Your task to perform on an android device: open the mobile data screen to see how much data has been used Image 0: 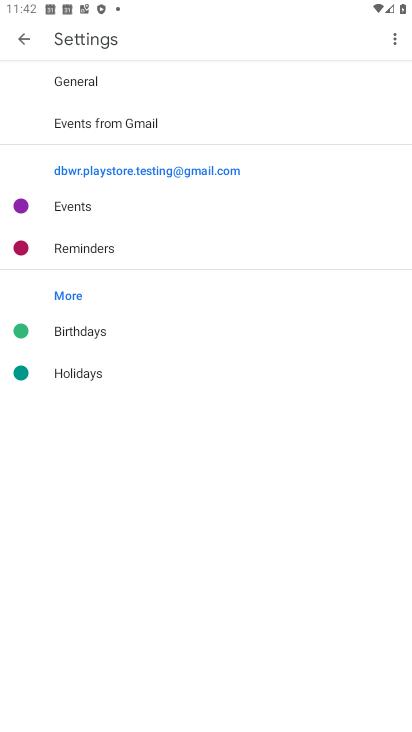
Step 0: press home button
Your task to perform on an android device: open the mobile data screen to see how much data has been used Image 1: 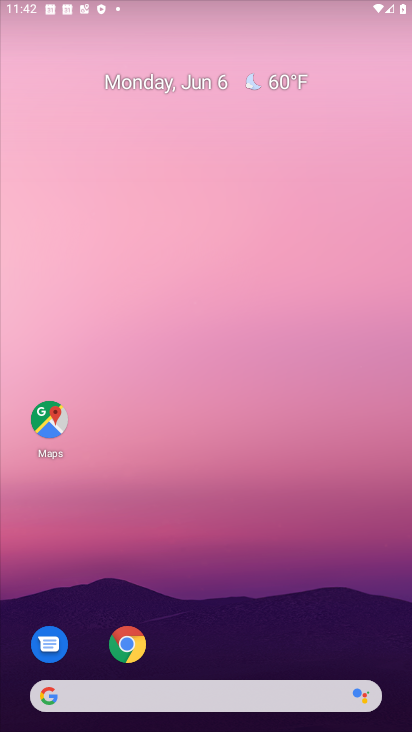
Step 1: drag from (246, 608) to (294, 111)
Your task to perform on an android device: open the mobile data screen to see how much data has been used Image 2: 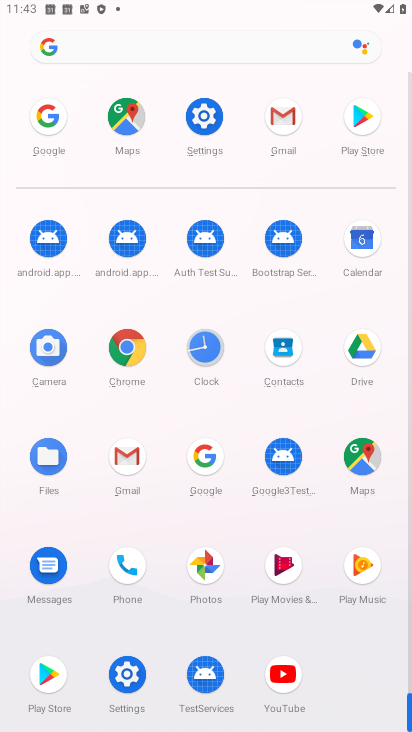
Step 2: click (209, 130)
Your task to perform on an android device: open the mobile data screen to see how much data has been used Image 3: 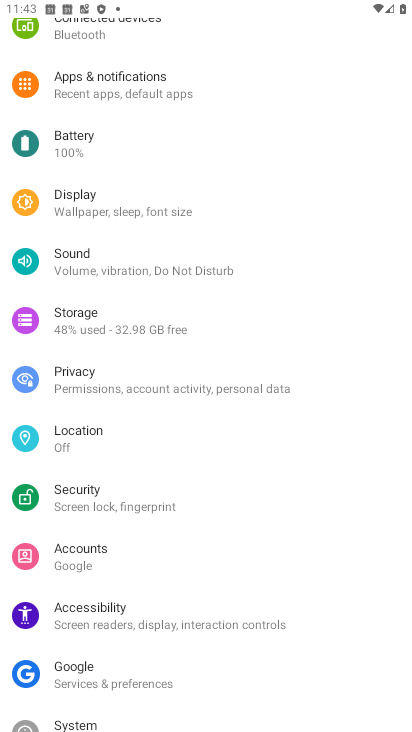
Step 3: drag from (172, 286) to (129, 594)
Your task to perform on an android device: open the mobile data screen to see how much data has been used Image 4: 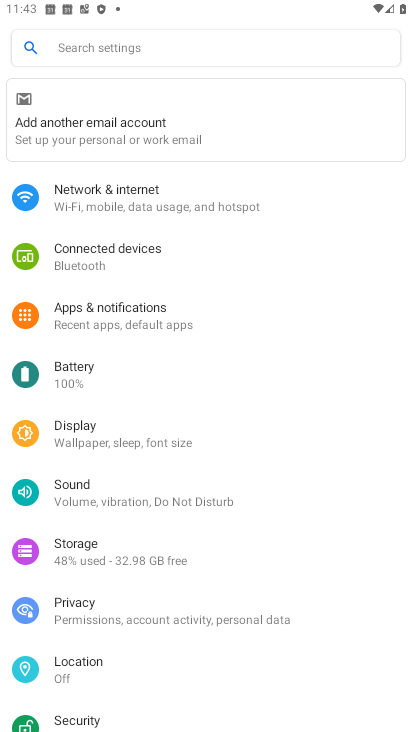
Step 4: click (160, 208)
Your task to perform on an android device: open the mobile data screen to see how much data has been used Image 5: 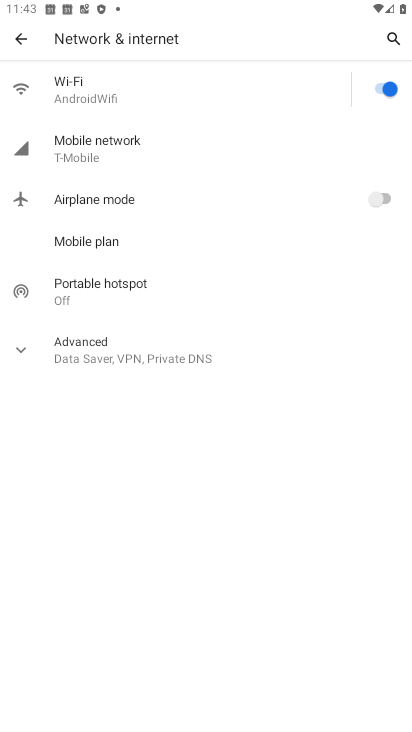
Step 5: click (120, 160)
Your task to perform on an android device: open the mobile data screen to see how much data has been used Image 6: 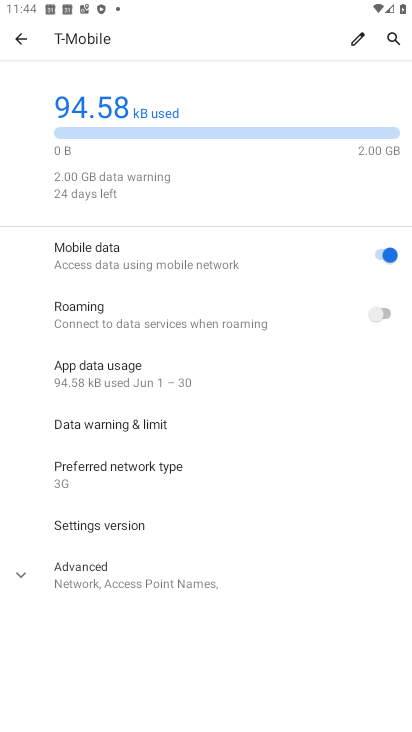
Step 6: click (146, 368)
Your task to perform on an android device: open the mobile data screen to see how much data has been used Image 7: 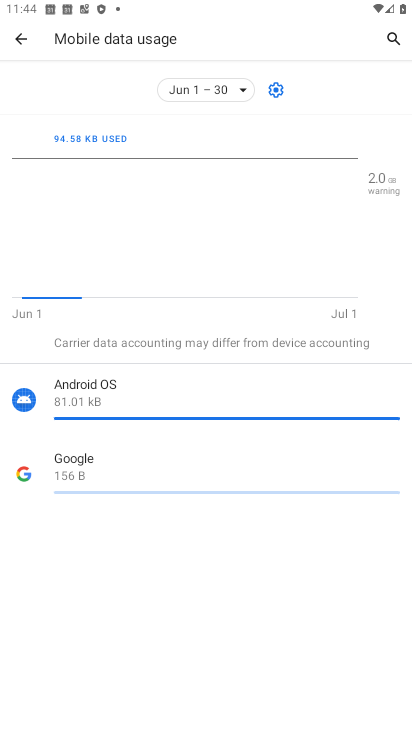
Step 7: task complete